Your task to perform on an android device: Is it going to rain this weekend? Image 0: 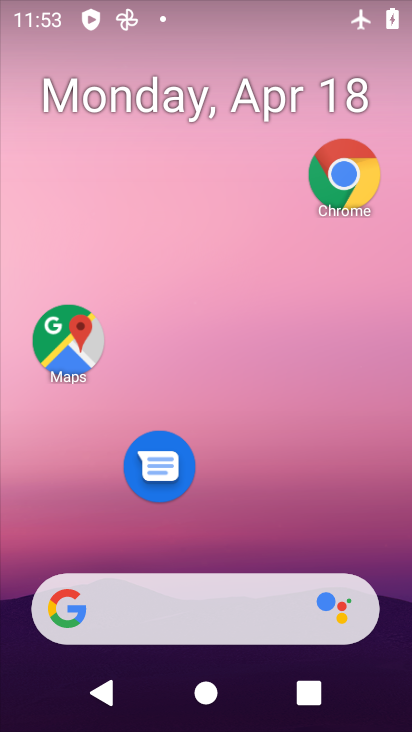
Step 0: drag from (292, 636) to (335, 292)
Your task to perform on an android device: Is it going to rain this weekend? Image 1: 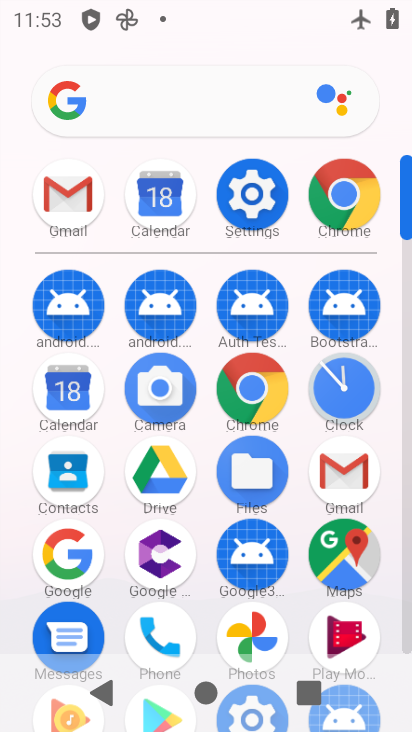
Step 1: click (410, 537)
Your task to perform on an android device: Is it going to rain this weekend? Image 2: 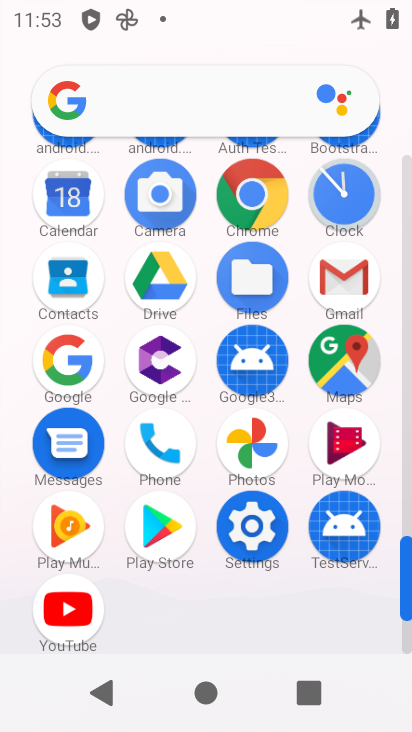
Step 2: click (66, 364)
Your task to perform on an android device: Is it going to rain this weekend? Image 3: 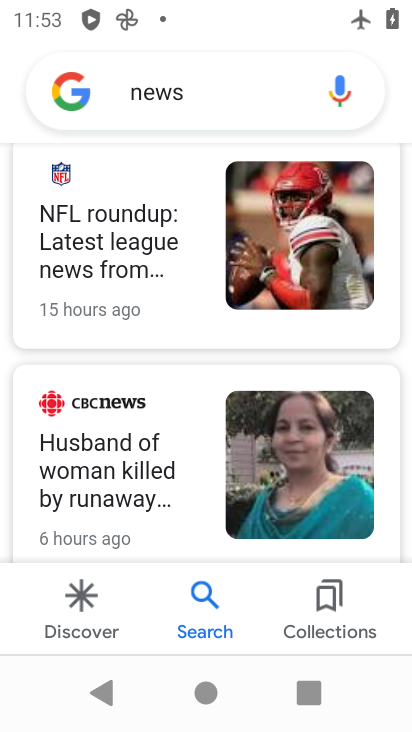
Step 3: click (274, 90)
Your task to perform on an android device: Is it going to rain this weekend? Image 4: 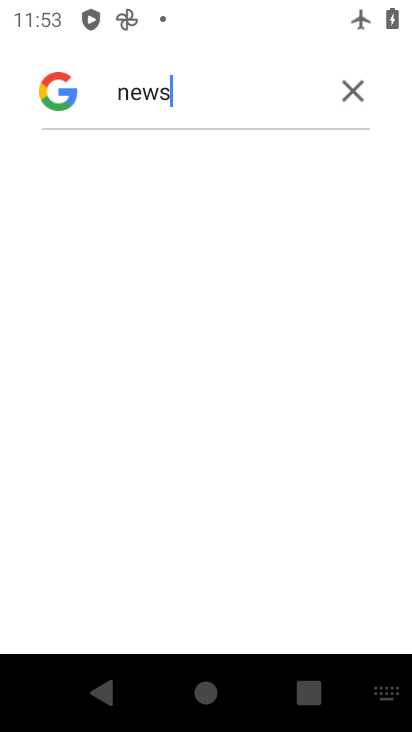
Step 4: click (362, 92)
Your task to perform on an android device: Is it going to rain this weekend? Image 5: 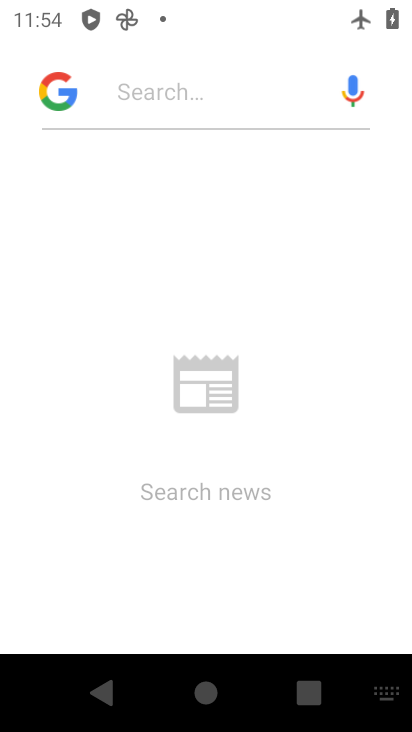
Step 5: type "weather"
Your task to perform on an android device: Is it going to rain this weekend? Image 6: 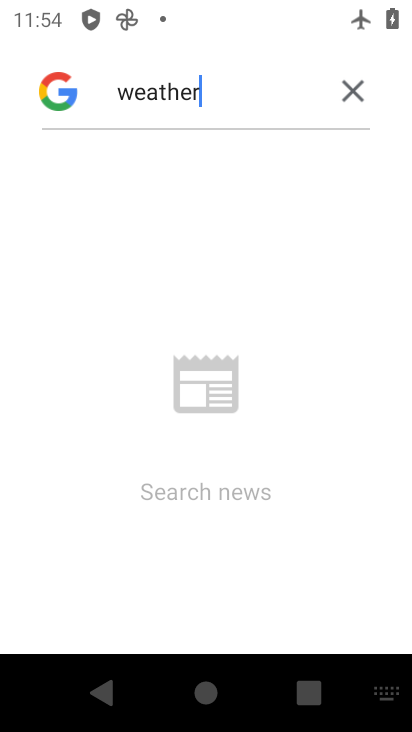
Step 6: type ""
Your task to perform on an android device: Is it going to rain this weekend? Image 7: 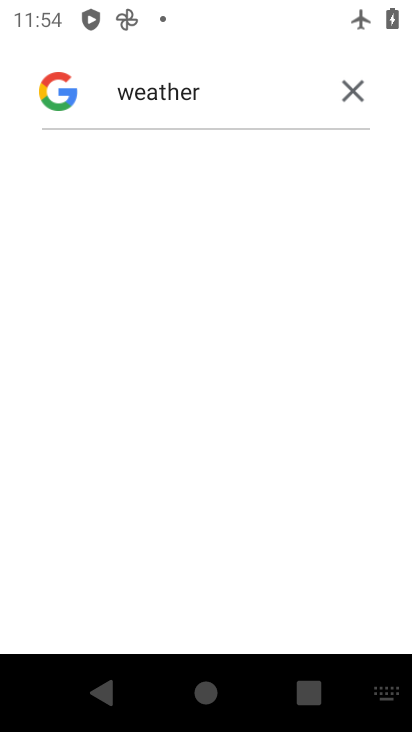
Step 7: task complete